Your task to perform on an android device: Open maps Image 0: 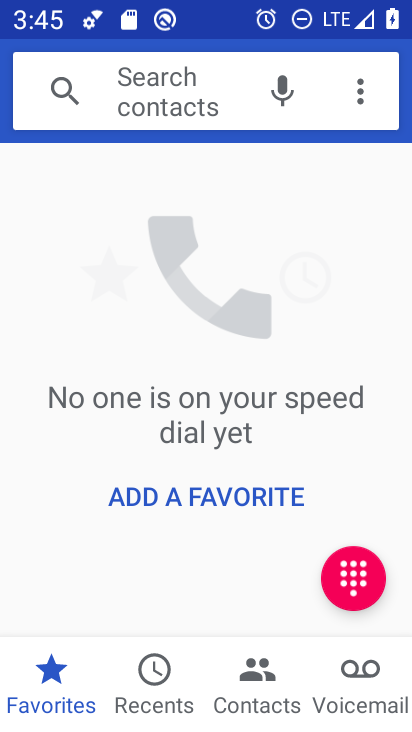
Step 0: press home button
Your task to perform on an android device: Open maps Image 1: 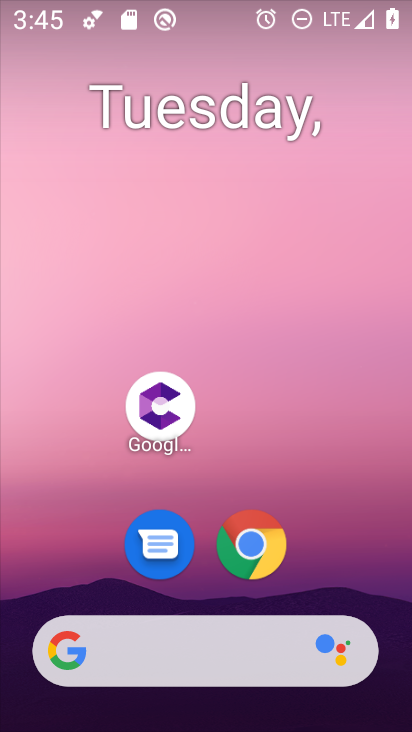
Step 1: drag from (374, 576) to (411, 220)
Your task to perform on an android device: Open maps Image 2: 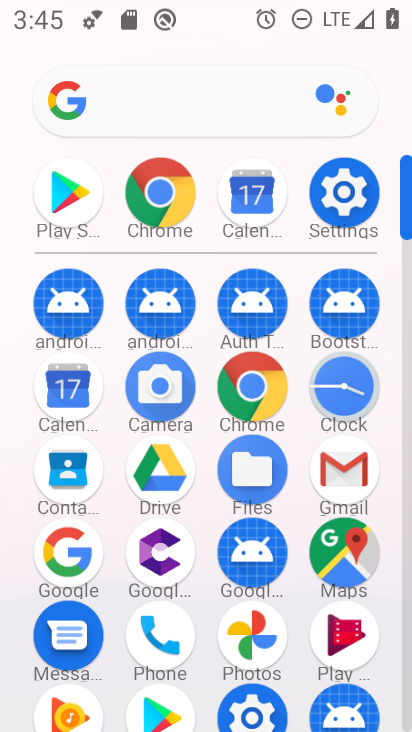
Step 2: click (353, 551)
Your task to perform on an android device: Open maps Image 3: 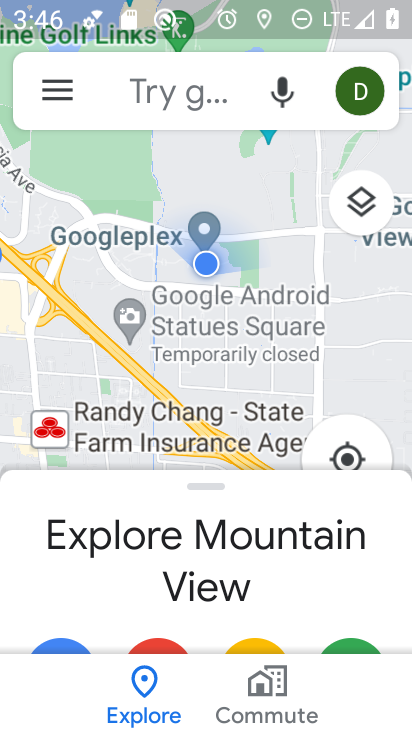
Step 3: task complete